Your task to perform on an android device: open app "Spotify" (install if not already installed) Image 0: 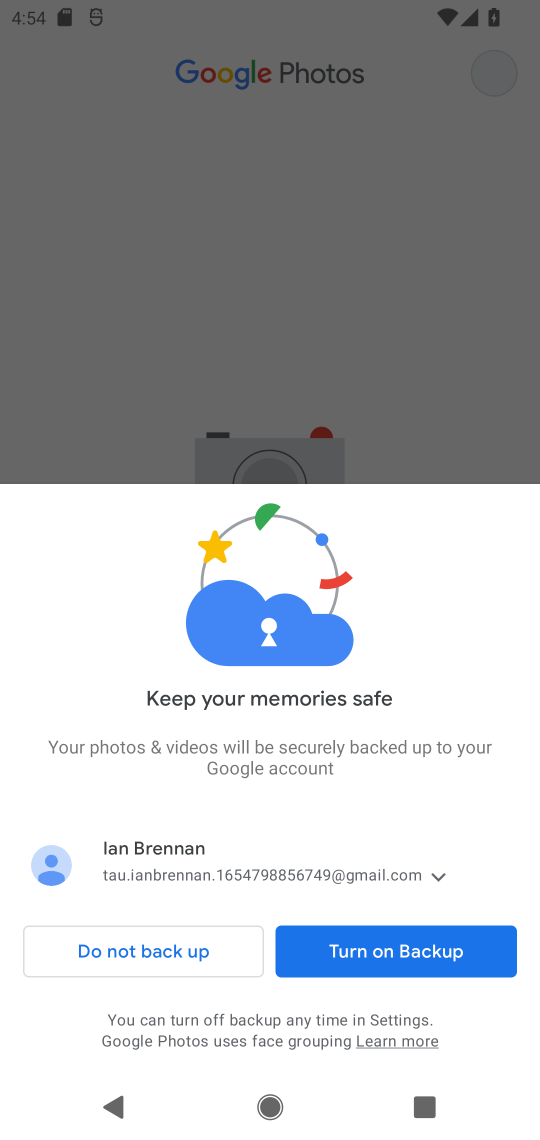
Step 0: press home button
Your task to perform on an android device: open app "Spotify" (install if not already installed) Image 1: 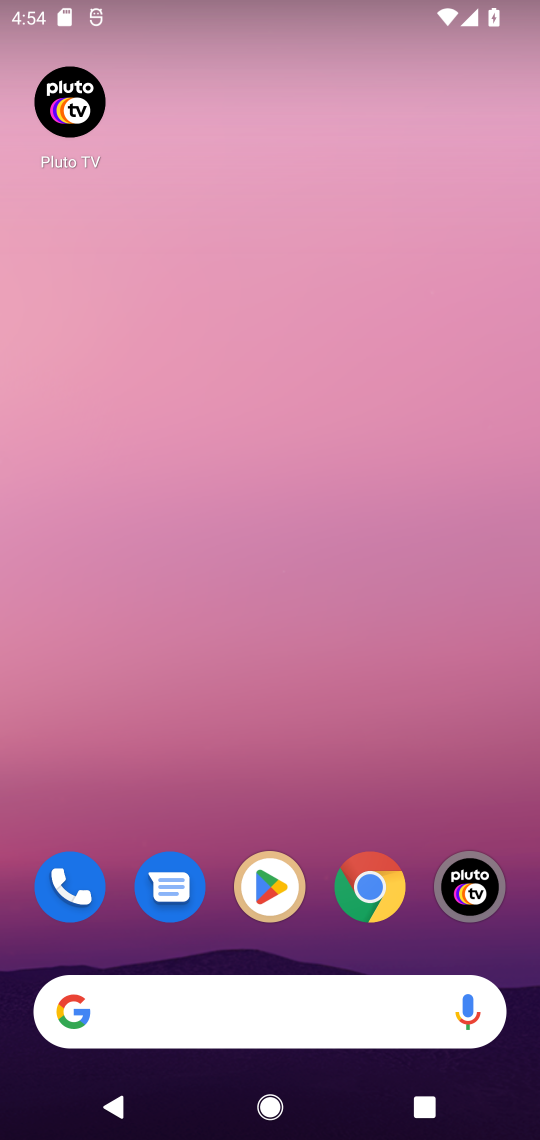
Step 1: click (275, 891)
Your task to perform on an android device: open app "Spotify" (install if not already installed) Image 2: 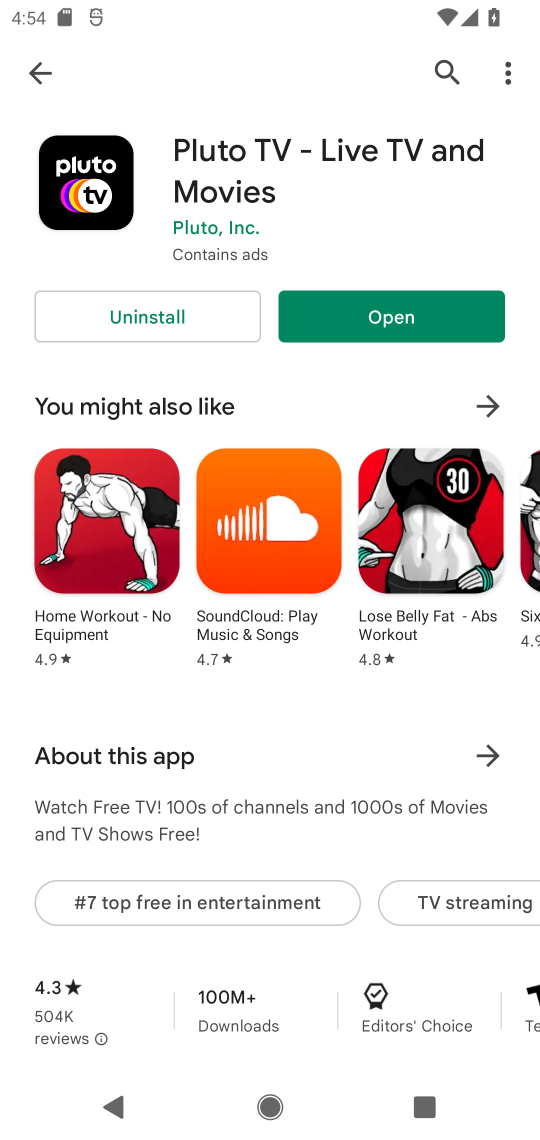
Step 2: click (439, 69)
Your task to perform on an android device: open app "Spotify" (install if not already installed) Image 3: 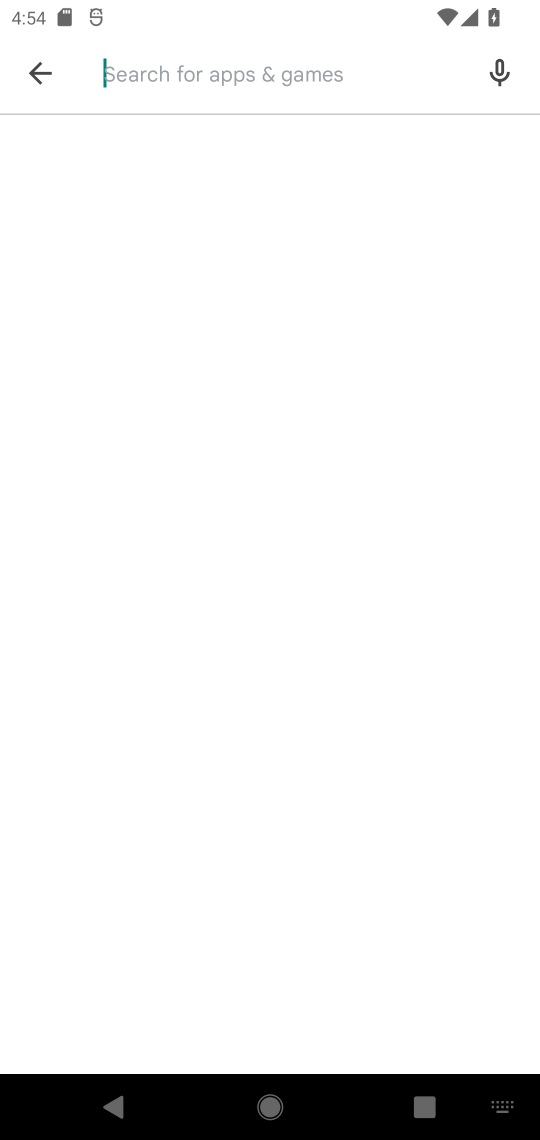
Step 3: type "Spotify"
Your task to perform on an android device: open app "Spotify" (install if not already installed) Image 4: 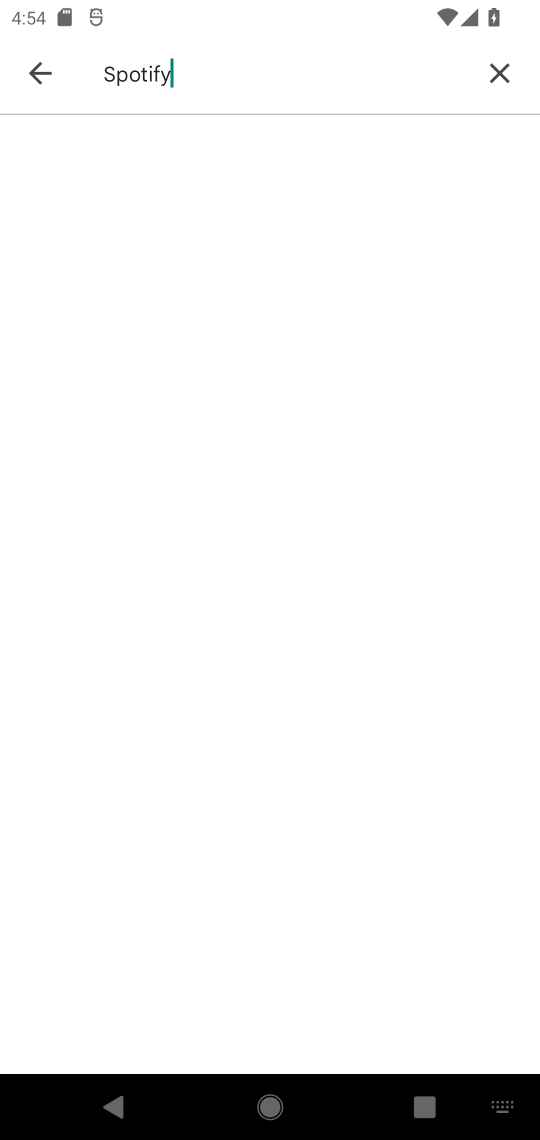
Step 4: type ""
Your task to perform on an android device: open app "Spotify" (install if not already installed) Image 5: 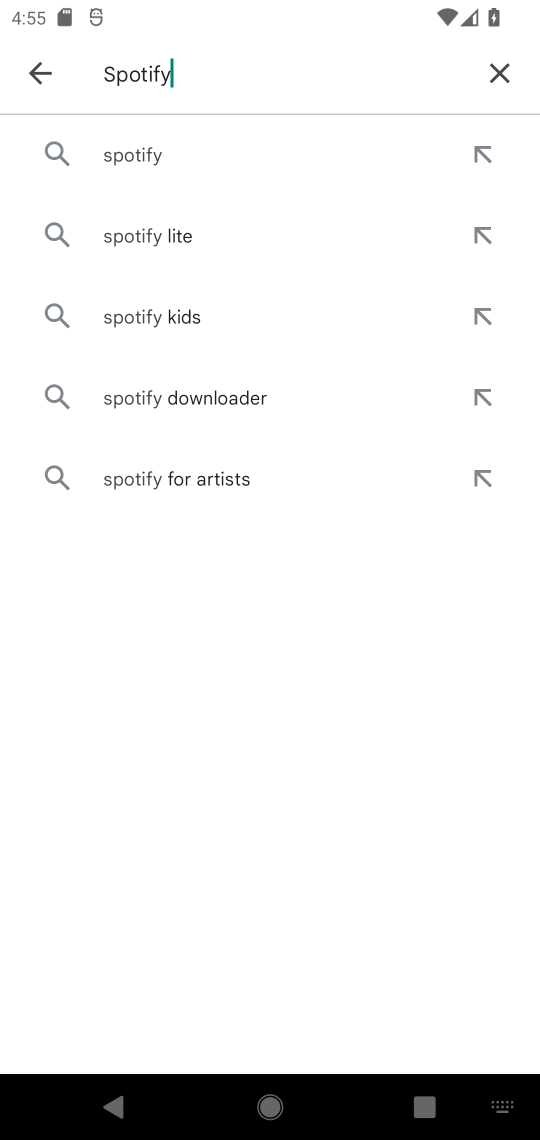
Step 5: click (139, 151)
Your task to perform on an android device: open app "Spotify" (install if not already installed) Image 6: 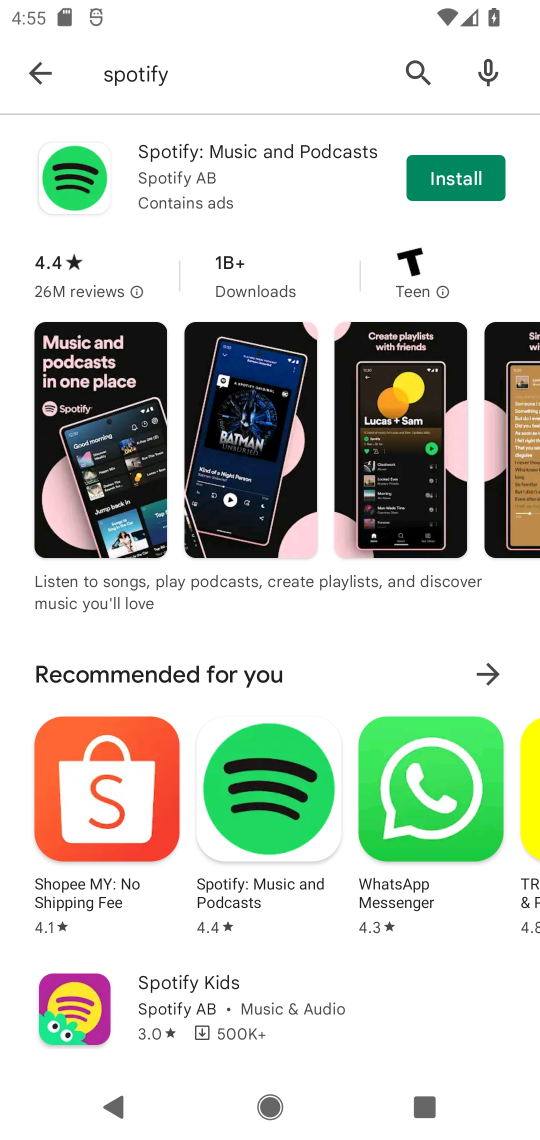
Step 6: click (465, 173)
Your task to perform on an android device: open app "Spotify" (install if not already installed) Image 7: 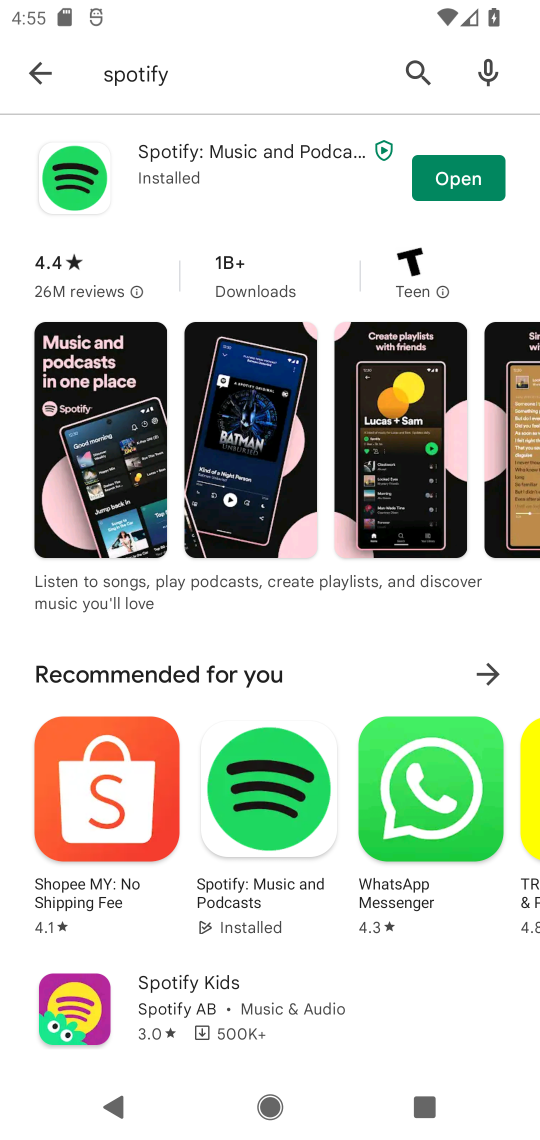
Step 7: click (465, 173)
Your task to perform on an android device: open app "Spotify" (install if not already installed) Image 8: 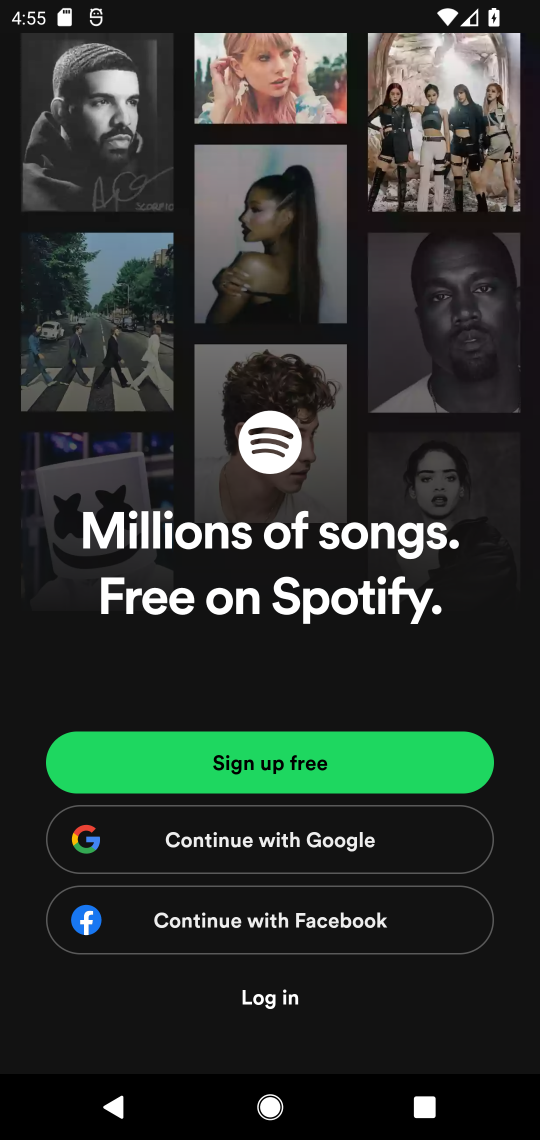
Step 8: task complete